Your task to perform on an android device: Show me recent news Image 0: 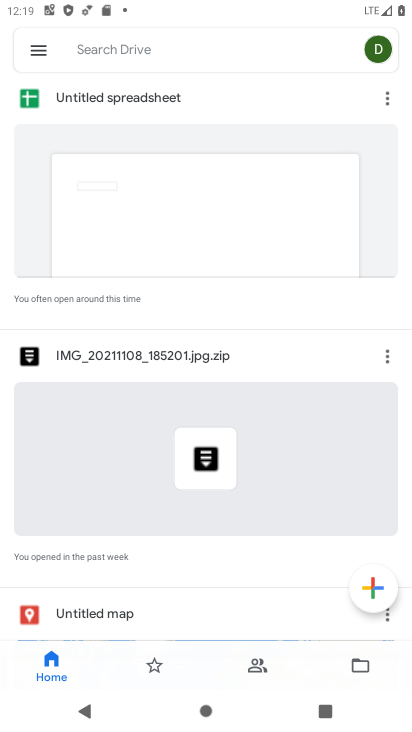
Step 0: press back button
Your task to perform on an android device: Show me recent news Image 1: 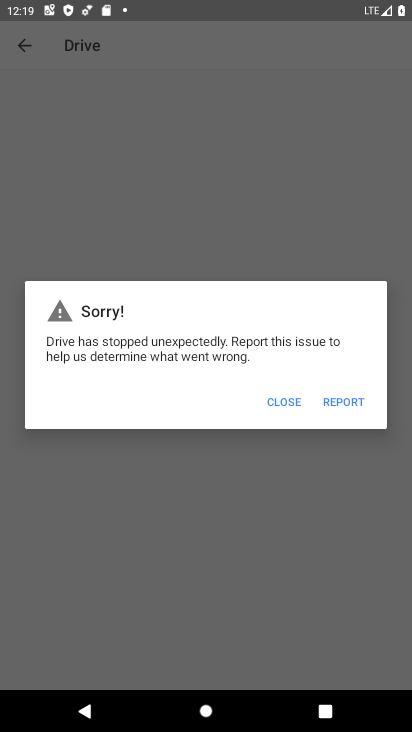
Step 1: press home button
Your task to perform on an android device: Show me recent news Image 2: 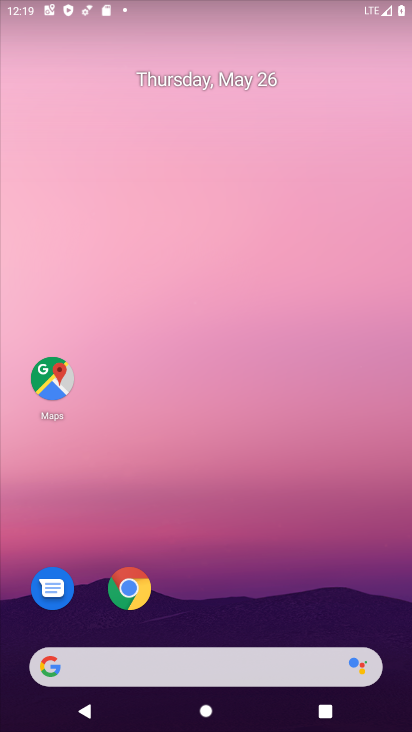
Step 2: drag from (305, 582) to (217, 1)
Your task to perform on an android device: Show me recent news Image 3: 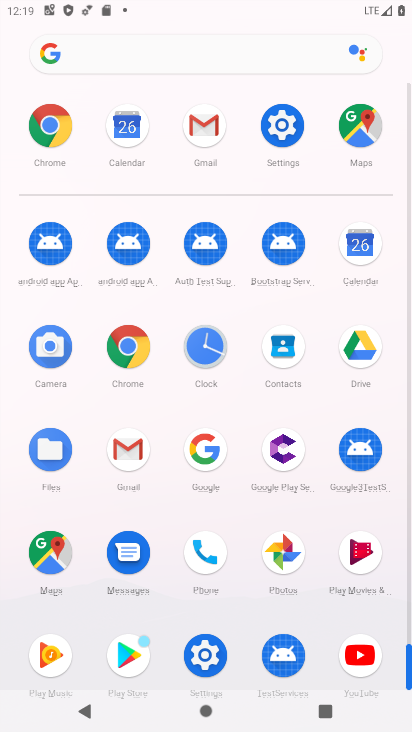
Step 3: drag from (0, 584) to (0, 294)
Your task to perform on an android device: Show me recent news Image 4: 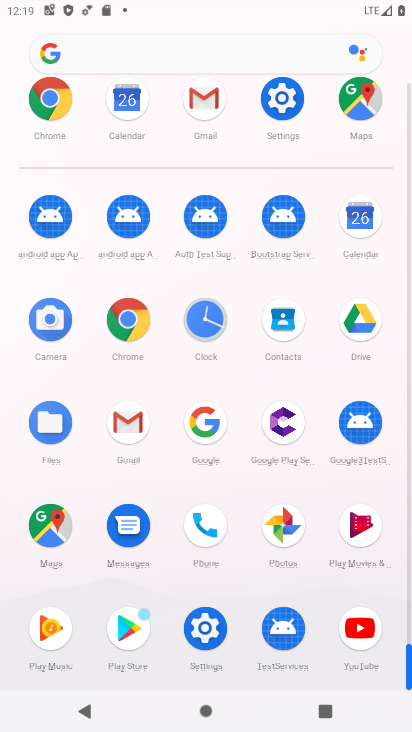
Step 4: click (128, 317)
Your task to perform on an android device: Show me recent news Image 5: 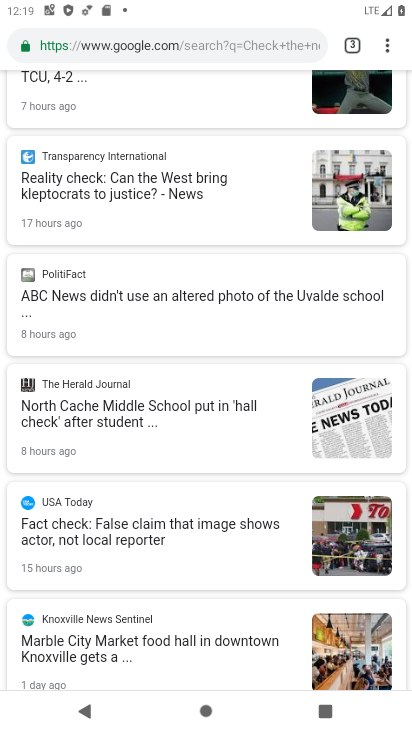
Step 5: drag from (189, 93) to (200, 289)
Your task to perform on an android device: Show me recent news Image 6: 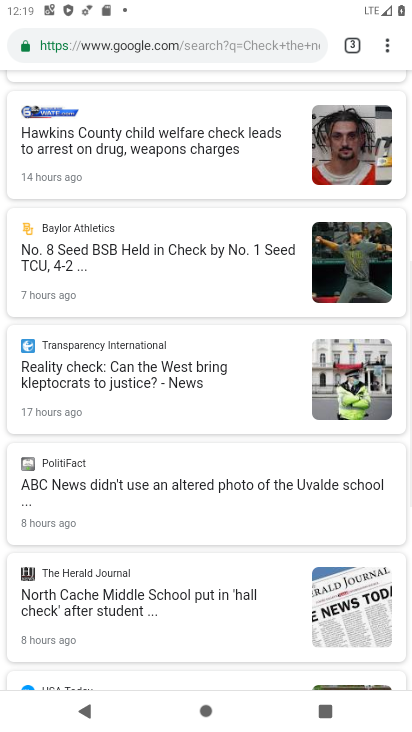
Step 6: click (180, 34)
Your task to perform on an android device: Show me recent news Image 7: 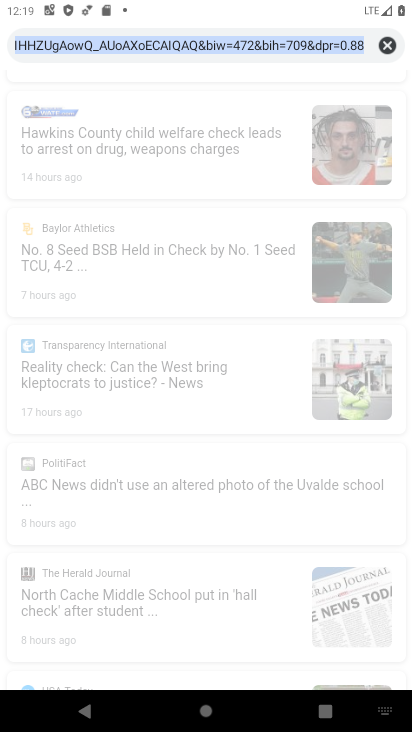
Step 7: click (390, 44)
Your task to perform on an android device: Show me recent news Image 8: 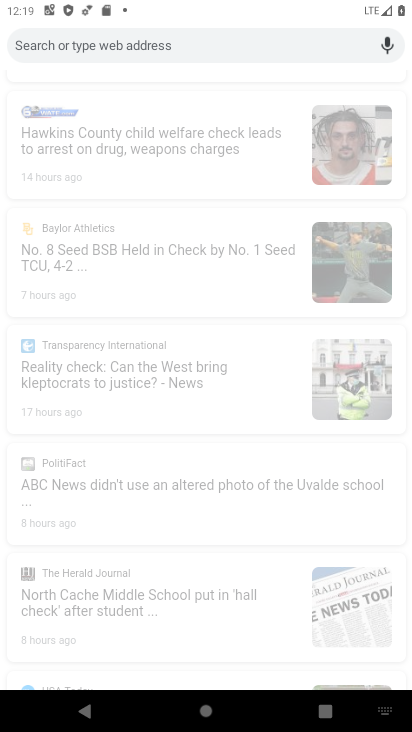
Step 8: type "Show me recent news"
Your task to perform on an android device: Show me recent news Image 9: 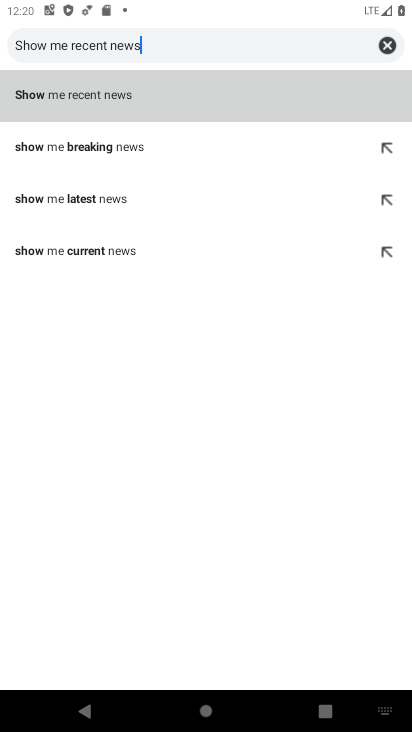
Step 9: click (150, 79)
Your task to perform on an android device: Show me recent news Image 10: 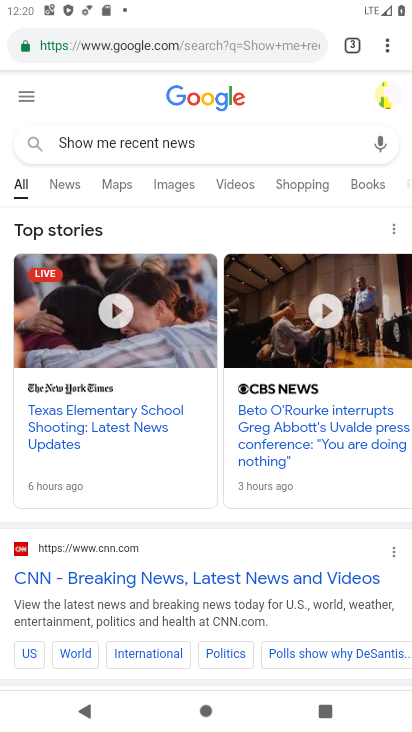
Step 10: task complete